Your task to perform on an android device: turn off notifications in google photos Image 0: 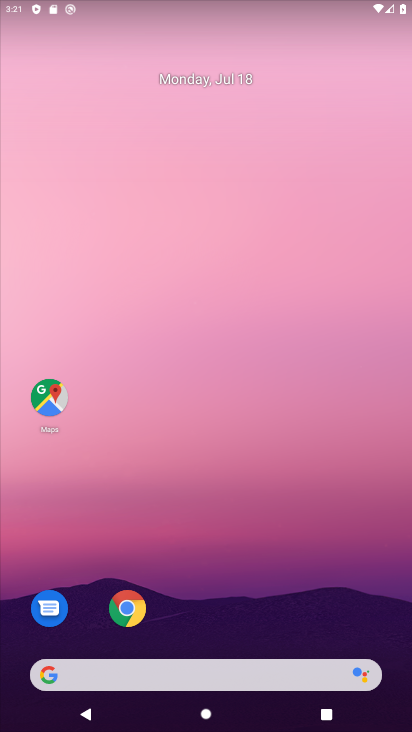
Step 0: drag from (294, 543) to (264, 165)
Your task to perform on an android device: turn off notifications in google photos Image 1: 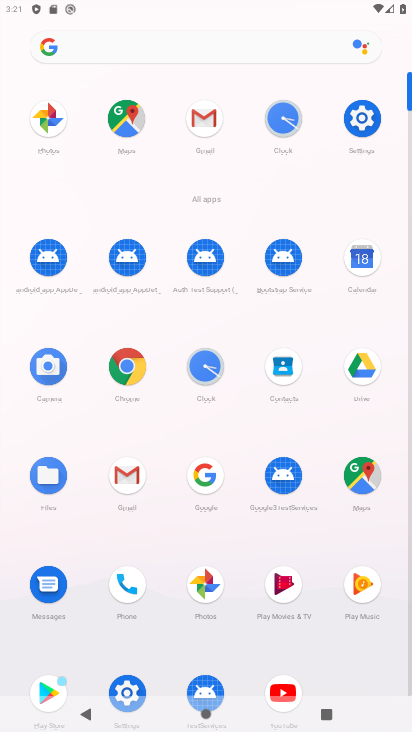
Step 1: click (206, 581)
Your task to perform on an android device: turn off notifications in google photos Image 2: 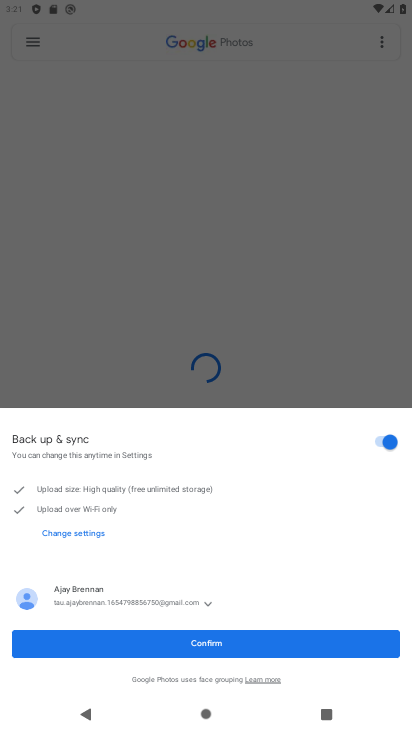
Step 2: task complete